Your task to perform on an android device: Open Youtube and go to "Your channel" Image 0: 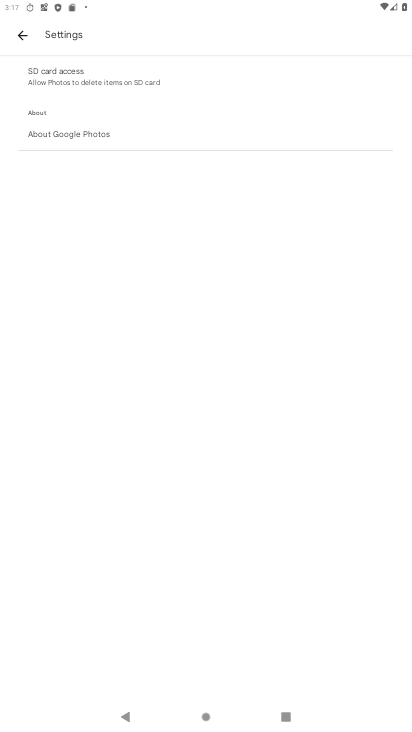
Step 0: press home button
Your task to perform on an android device: Open Youtube and go to "Your channel" Image 1: 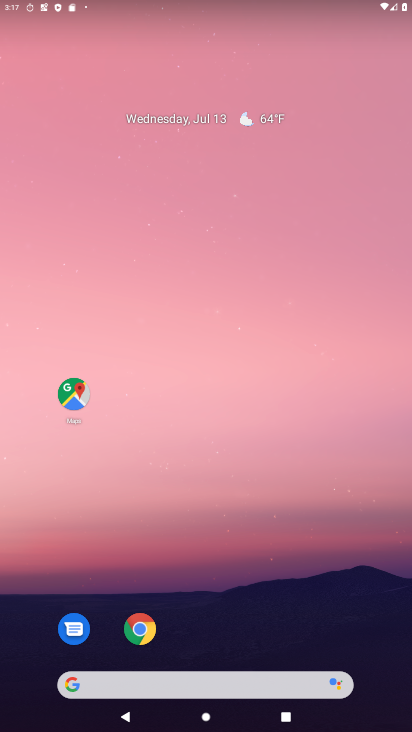
Step 1: drag from (318, 688) to (312, 94)
Your task to perform on an android device: Open Youtube and go to "Your channel" Image 2: 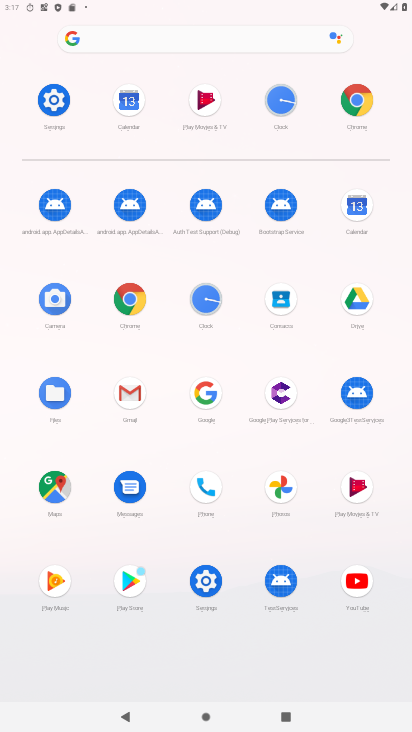
Step 2: click (353, 588)
Your task to perform on an android device: Open Youtube and go to "Your channel" Image 3: 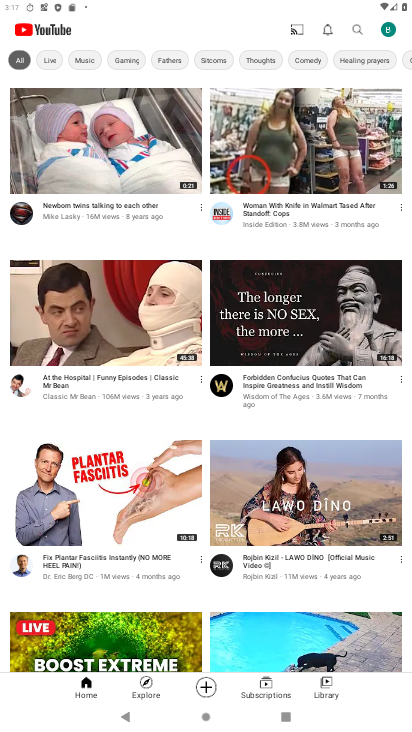
Step 3: click (388, 32)
Your task to perform on an android device: Open Youtube and go to "Your channel" Image 4: 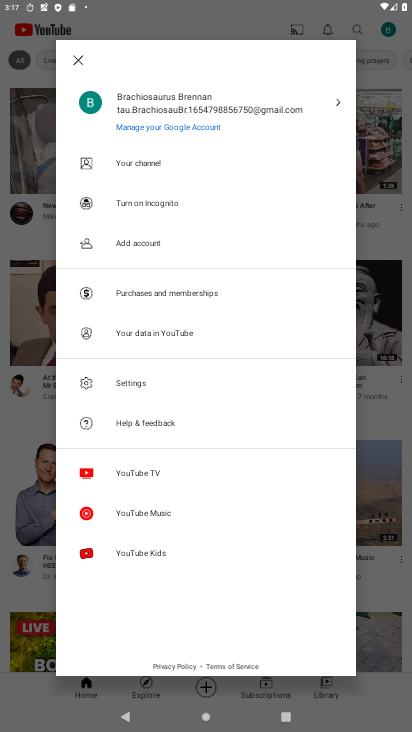
Step 4: click (138, 162)
Your task to perform on an android device: Open Youtube and go to "Your channel" Image 5: 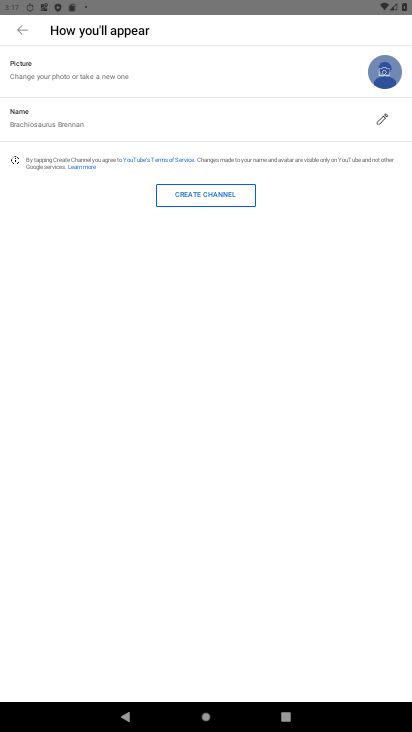
Step 5: task complete